Your task to perform on an android device: Open ESPN.com Image 0: 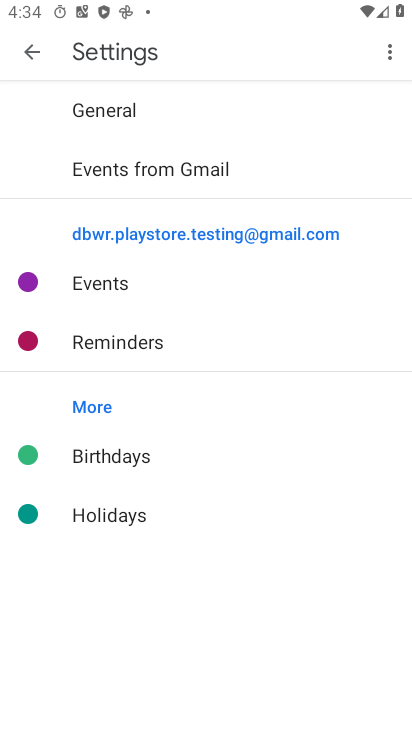
Step 0: click (30, 52)
Your task to perform on an android device: Open ESPN.com Image 1: 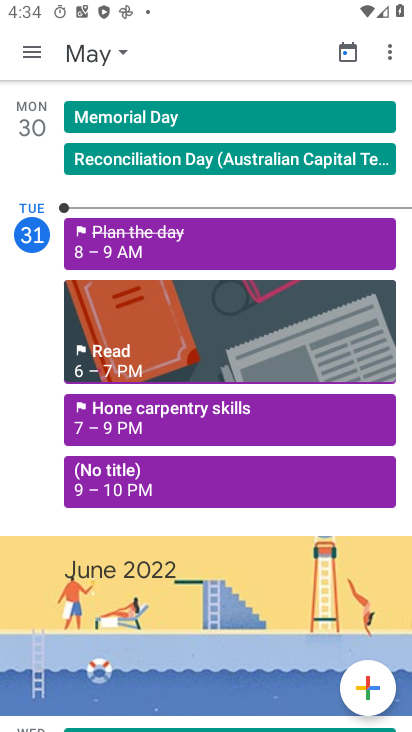
Step 1: press back button
Your task to perform on an android device: Open ESPN.com Image 2: 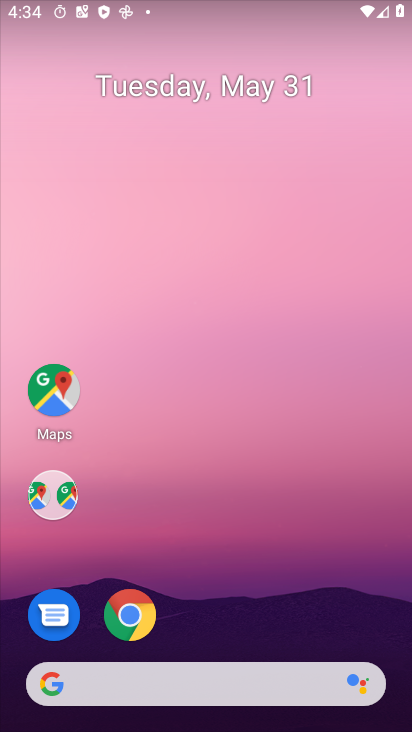
Step 2: drag from (225, 700) to (224, 94)
Your task to perform on an android device: Open ESPN.com Image 3: 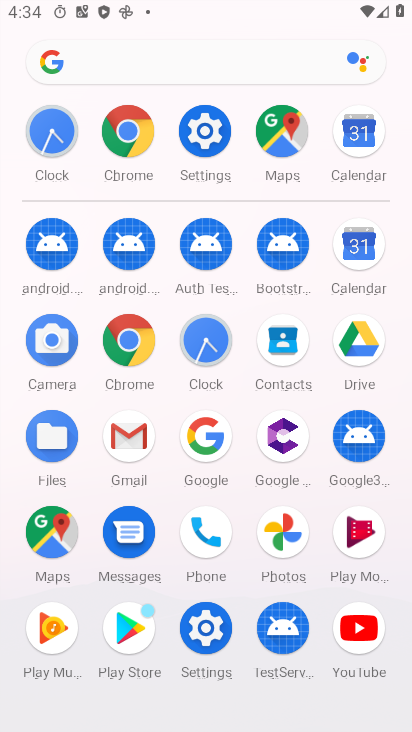
Step 3: click (138, 128)
Your task to perform on an android device: Open ESPN.com Image 4: 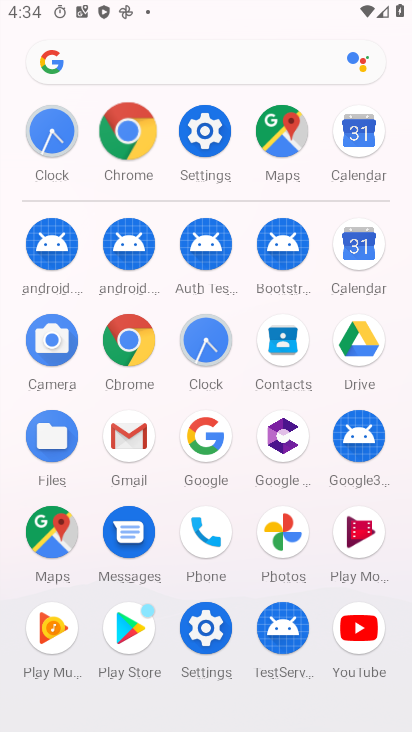
Step 4: click (138, 128)
Your task to perform on an android device: Open ESPN.com Image 5: 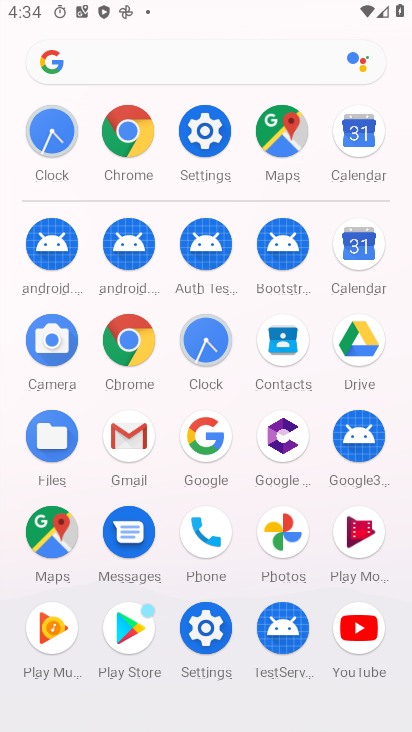
Step 5: click (139, 129)
Your task to perform on an android device: Open ESPN.com Image 6: 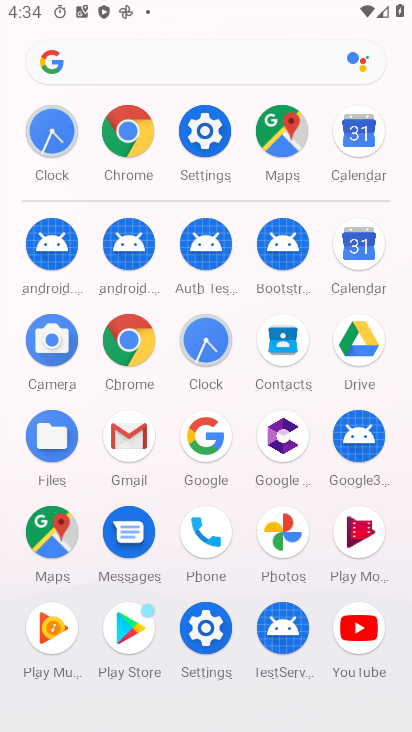
Step 6: click (139, 129)
Your task to perform on an android device: Open ESPN.com Image 7: 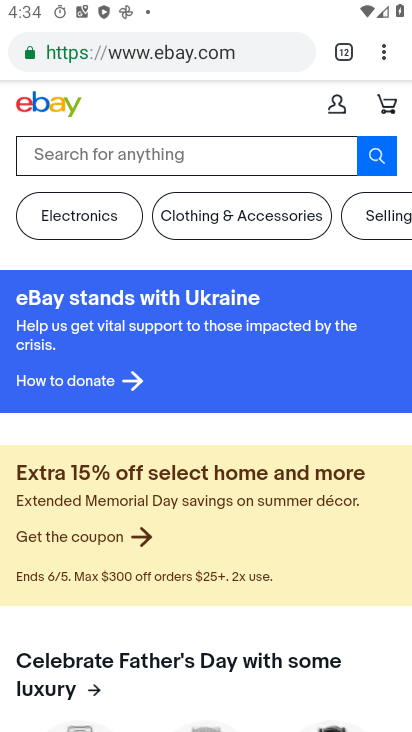
Step 7: click (384, 53)
Your task to perform on an android device: Open ESPN.com Image 8: 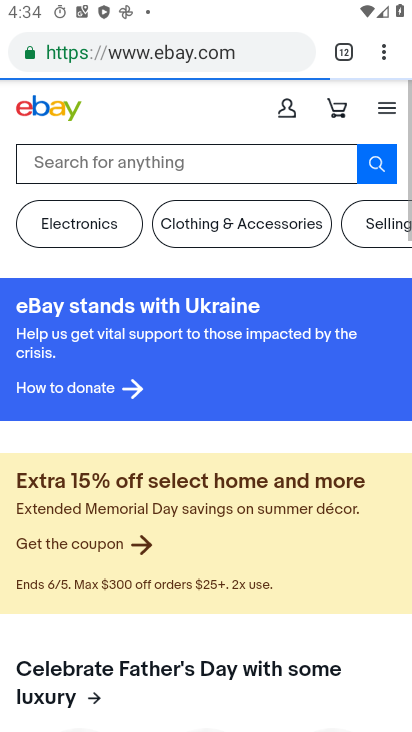
Step 8: drag from (384, 53) to (190, 92)
Your task to perform on an android device: Open ESPN.com Image 9: 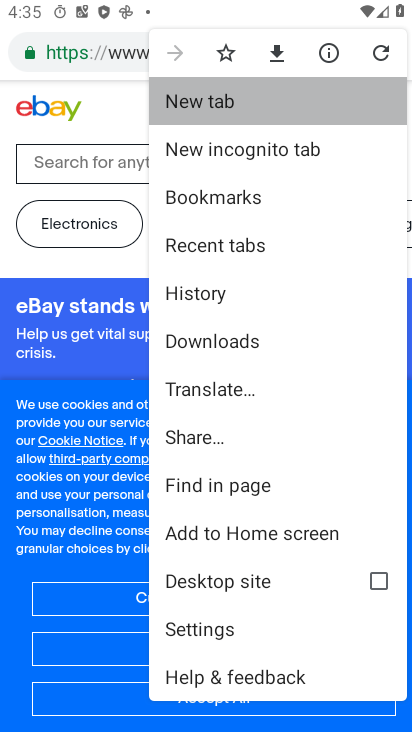
Step 9: click (190, 92)
Your task to perform on an android device: Open ESPN.com Image 10: 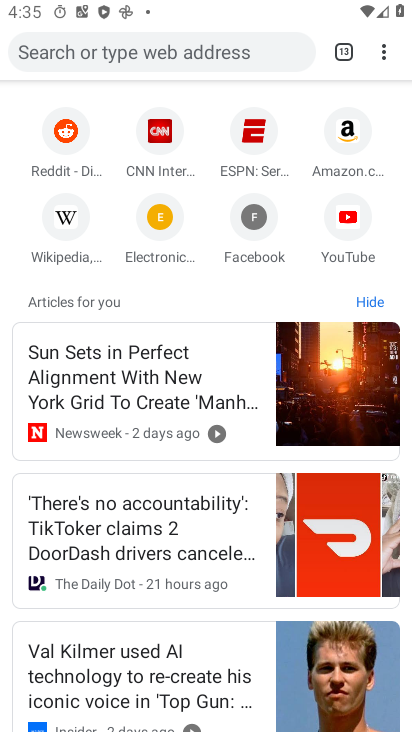
Step 10: click (252, 132)
Your task to perform on an android device: Open ESPN.com Image 11: 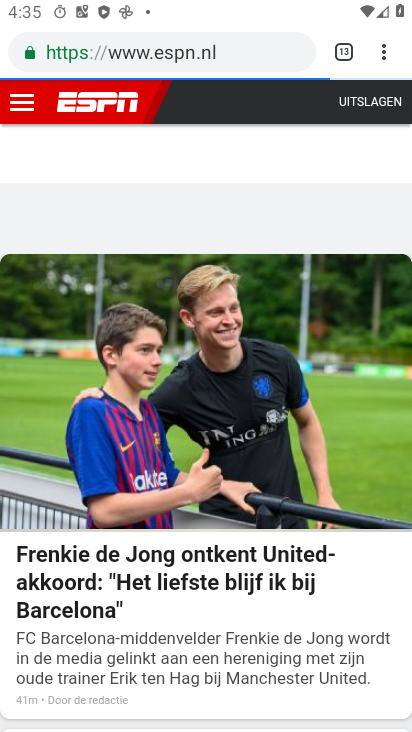
Step 11: task complete